Your task to perform on an android device: see creations saved in the google photos Image 0: 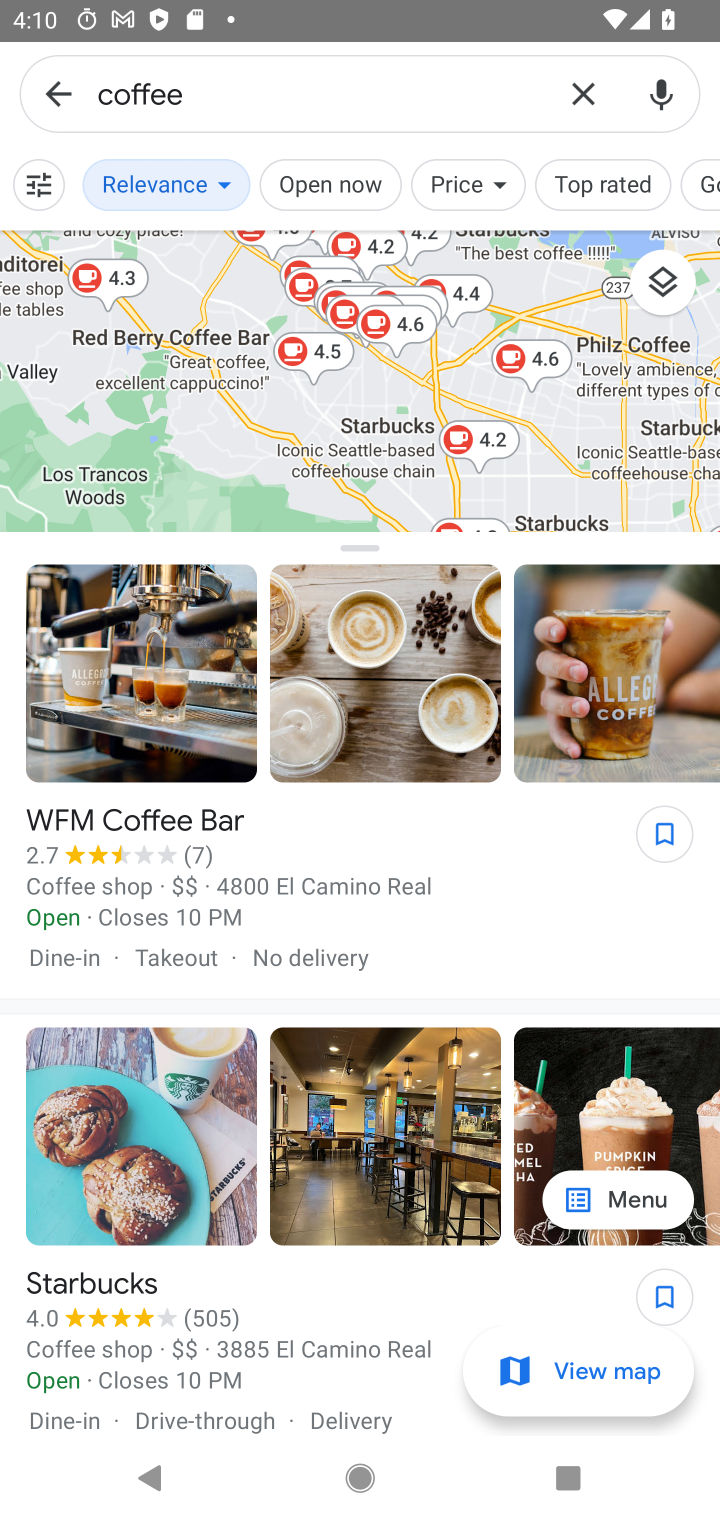
Step 0: press home button
Your task to perform on an android device: see creations saved in the google photos Image 1: 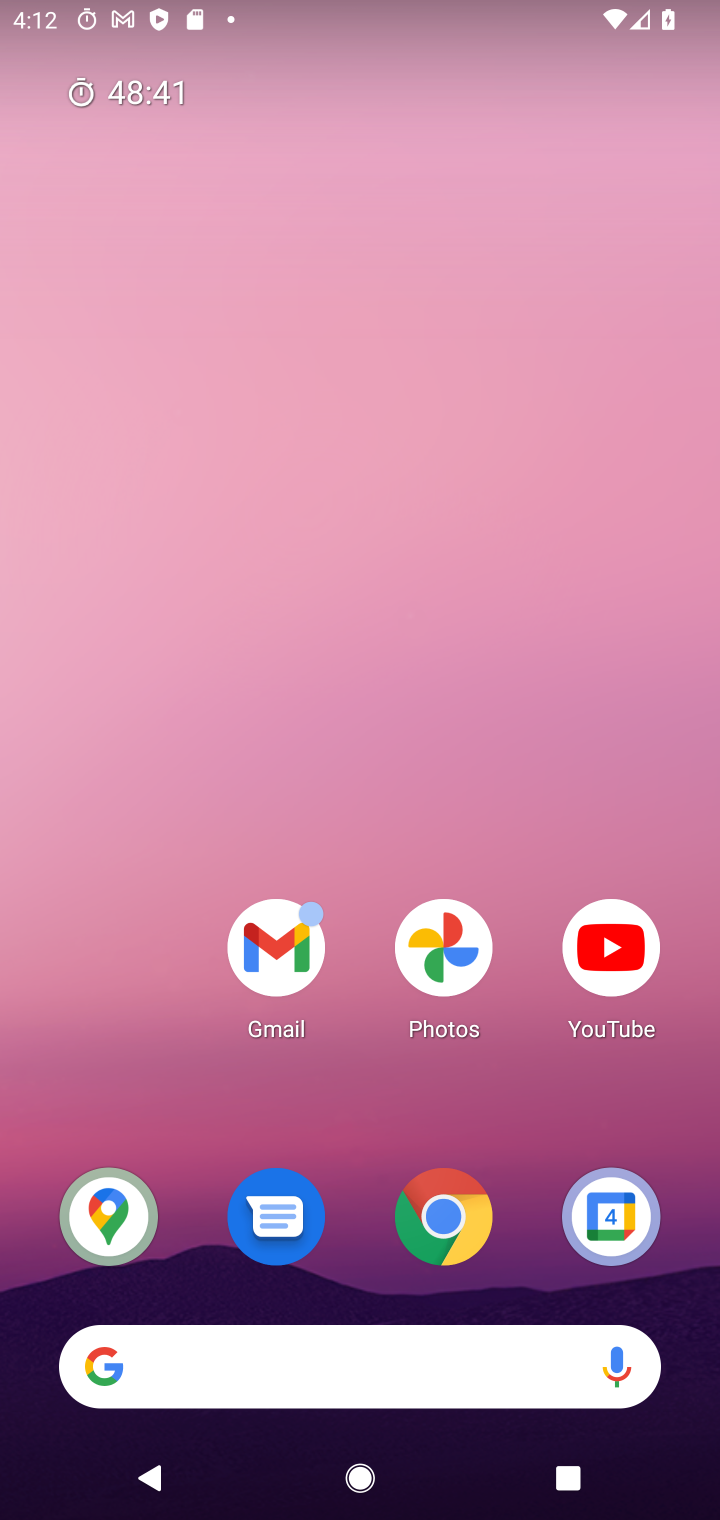
Step 1: click (426, 961)
Your task to perform on an android device: see creations saved in the google photos Image 2: 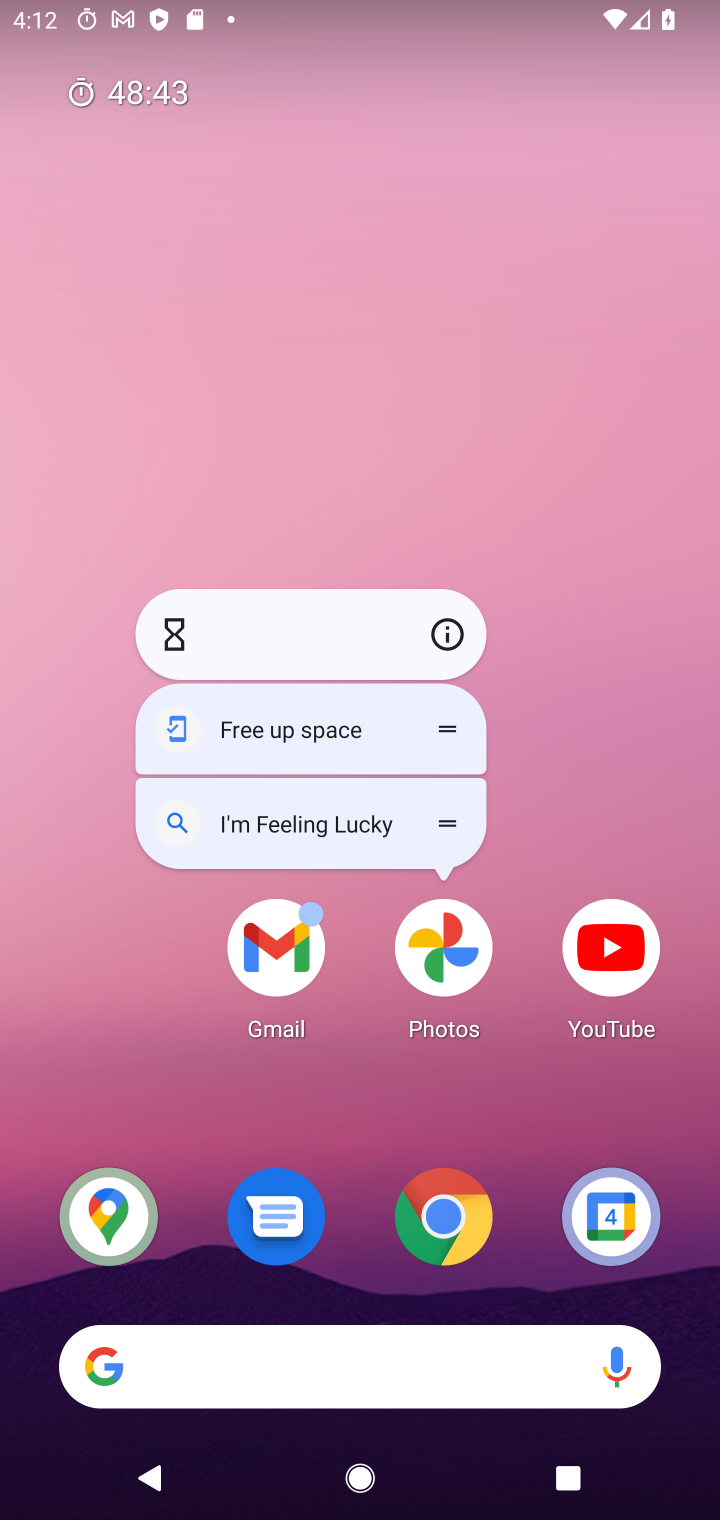
Step 2: click (444, 941)
Your task to perform on an android device: see creations saved in the google photos Image 3: 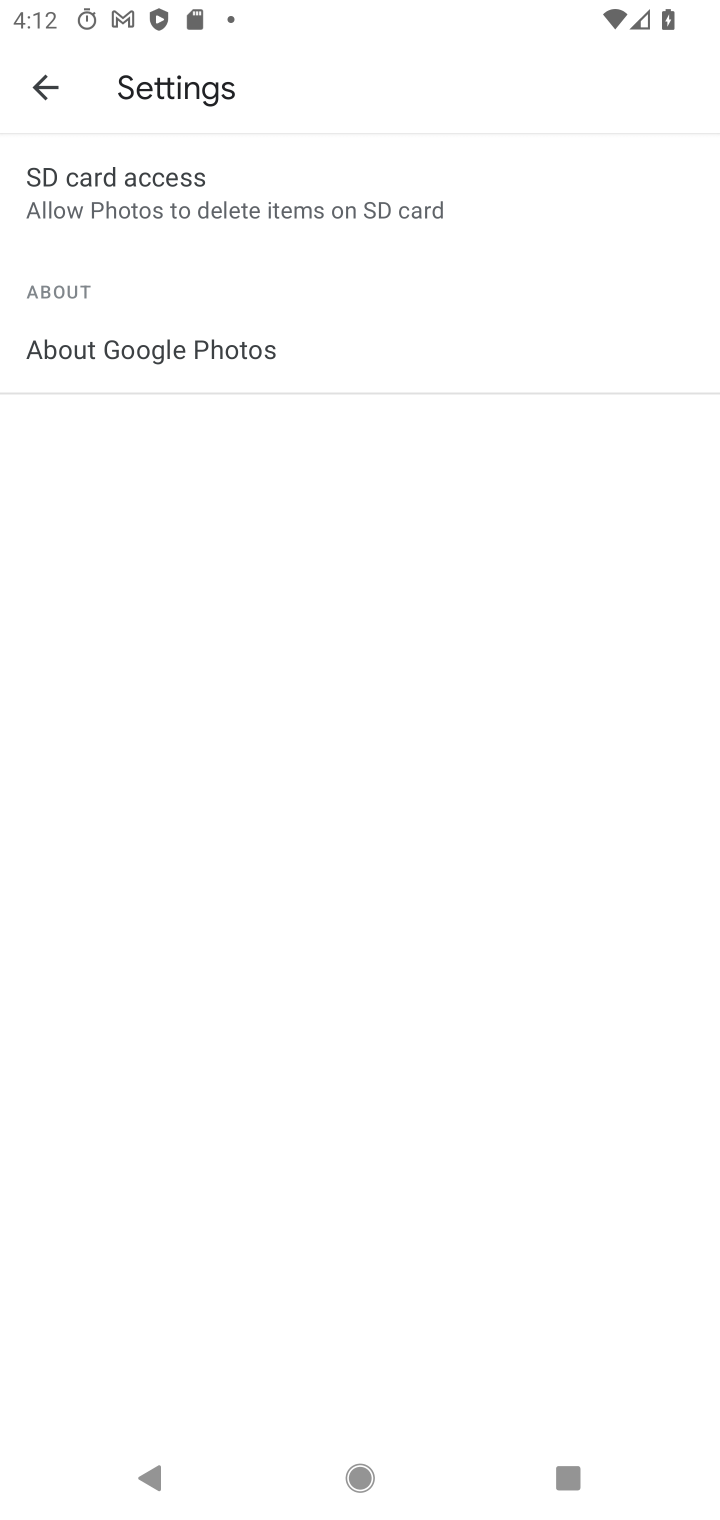
Step 3: click (47, 75)
Your task to perform on an android device: see creations saved in the google photos Image 4: 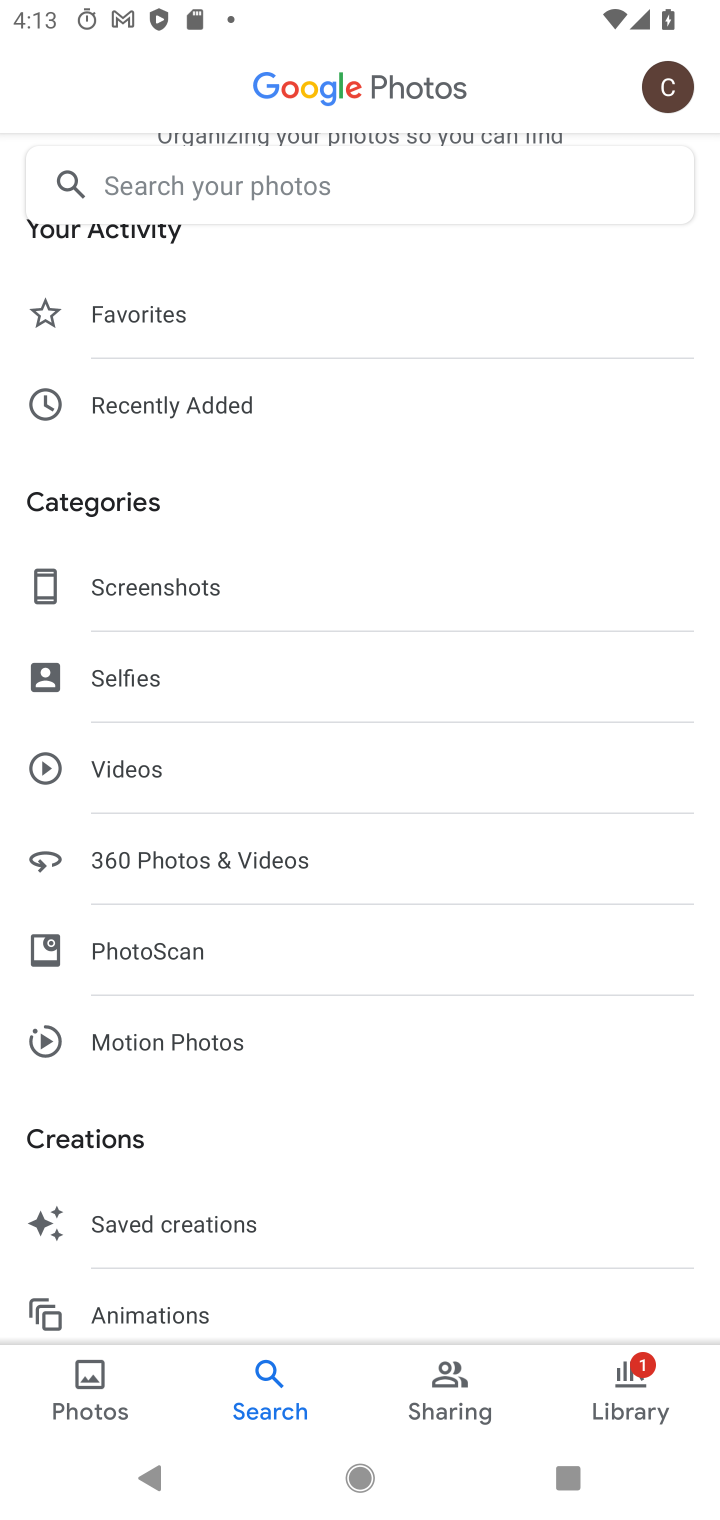
Step 4: task complete